Your task to perform on an android device: Go to Android settings Image 0: 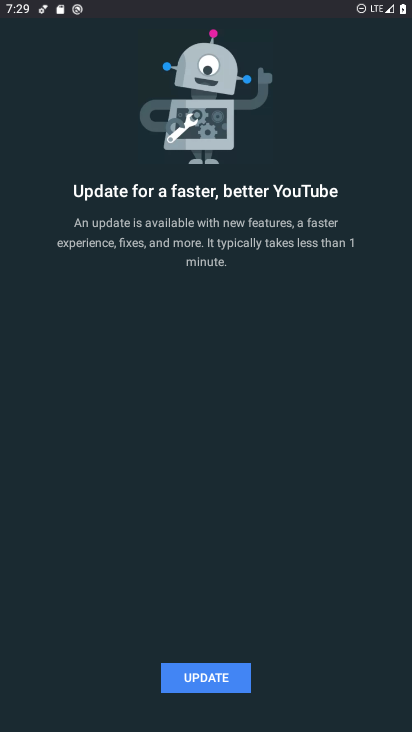
Step 0: press home button
Your task to perform on an android device: Go to Android settings Image 1: 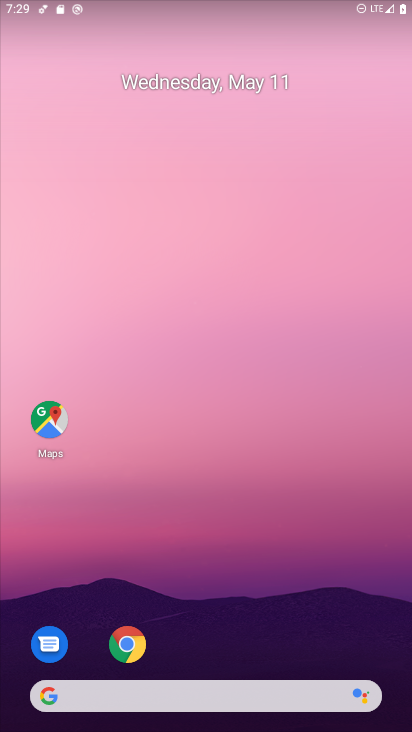
Step 1: drag from (223, 610) to (183, 192)
Your task to perform on an android device: Go to Android settings Image 2: 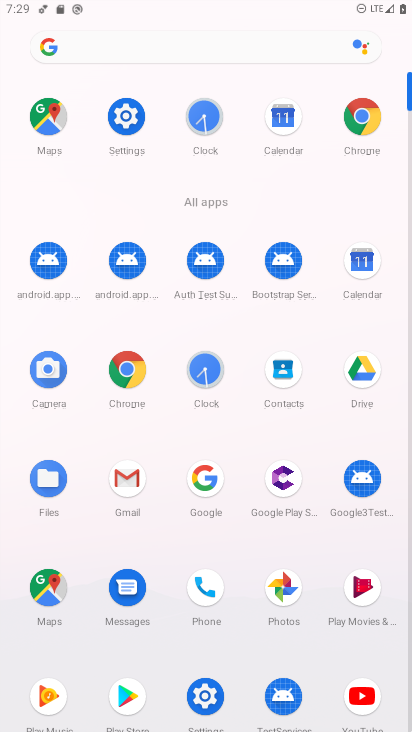
Step 2: click (209, 696)
Your task to perform on an android device: Go to Android settings Image 3: 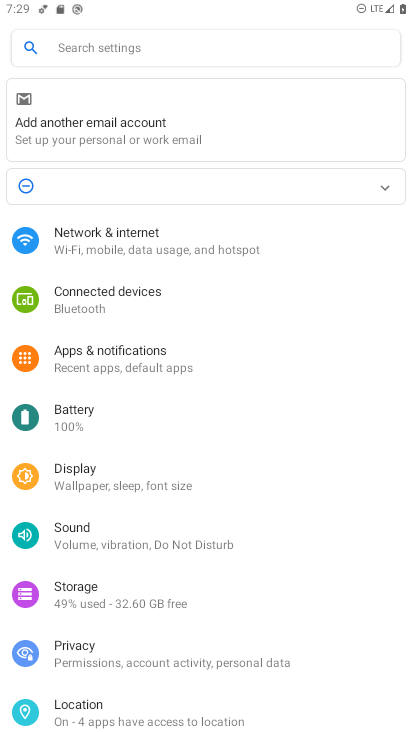
Step 3: task complete